Your task to perform on an android device: Checkthe settings for the Amazon Prime Music app Image 0: 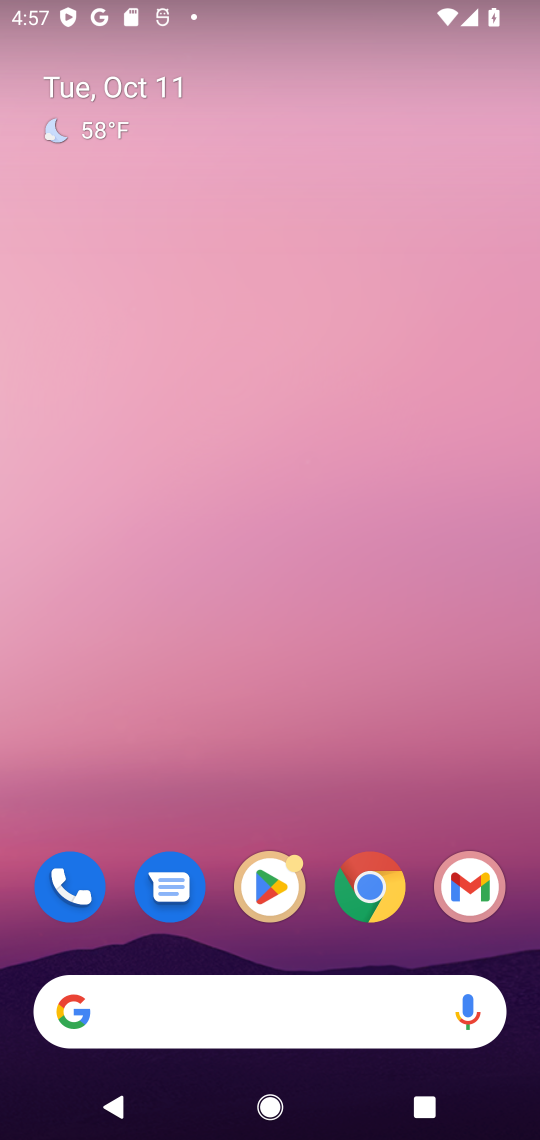
Step 0: click (279, 896)
Your task to perform on an android device: Checkthe settings for the Amazon Prime Music app Image 1: 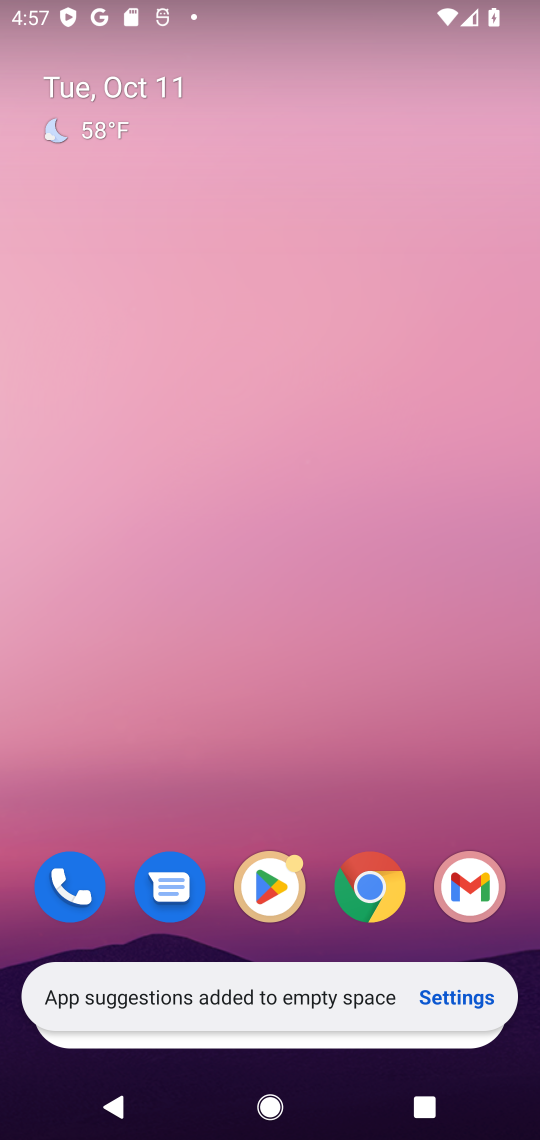
Step 1: click (279, 894)
Your task to perform on an android device: Checkthe settings for the Amazon Prime Music app Image 2: 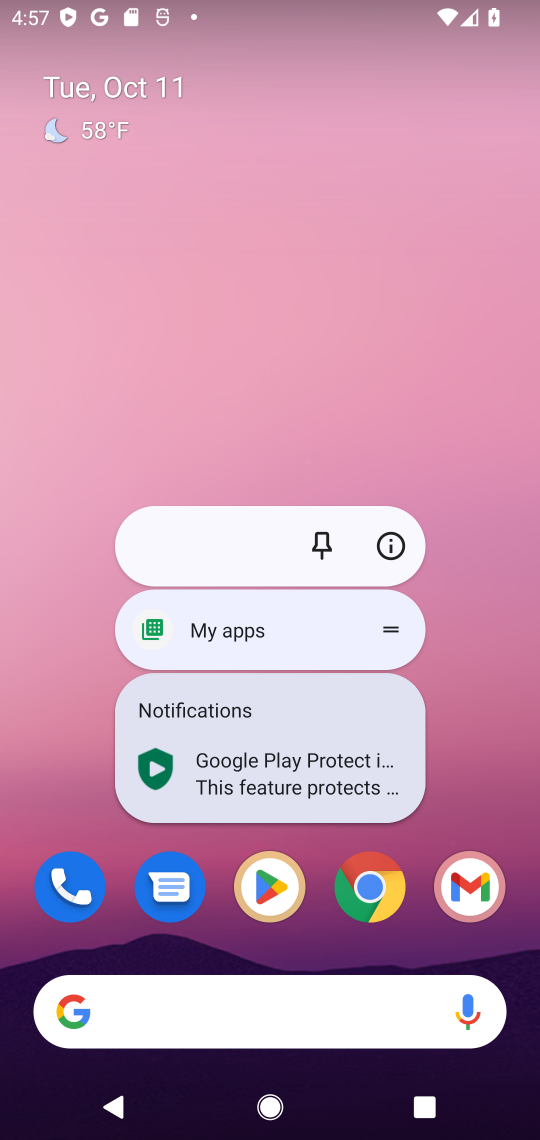
Step 2: click (303, 427)
Your task to perform on an android device: Checkthe settings for the Amazon Prime Music app Image 3: 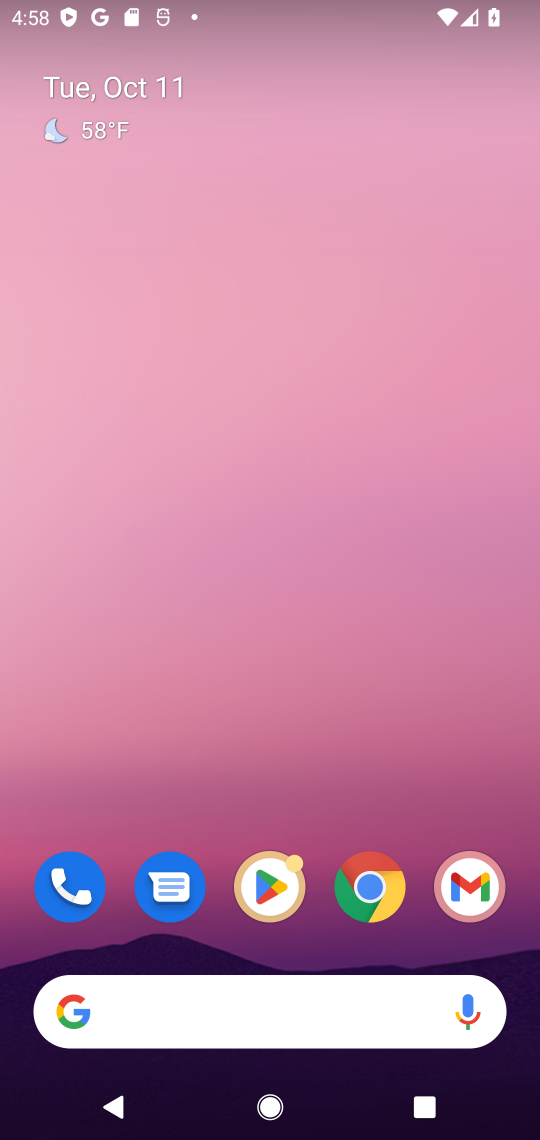
Step 3: task complete